Your task to perform on an android device: Open notification settings Image 0: 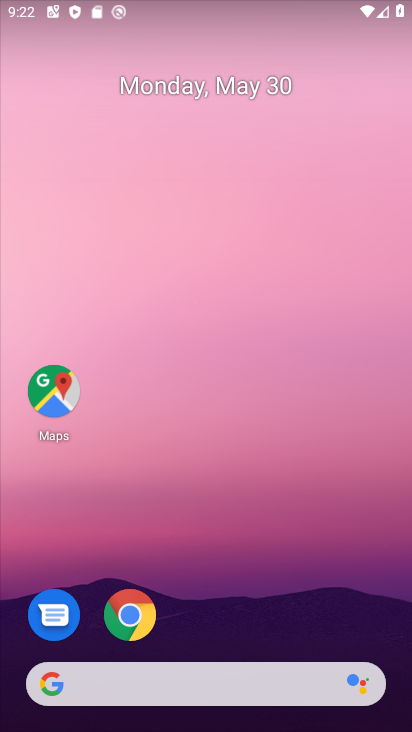
Step 0: drag from (267, 556) to (178, 27)
Your task to perform on an android device: Open notification settings Image 1: 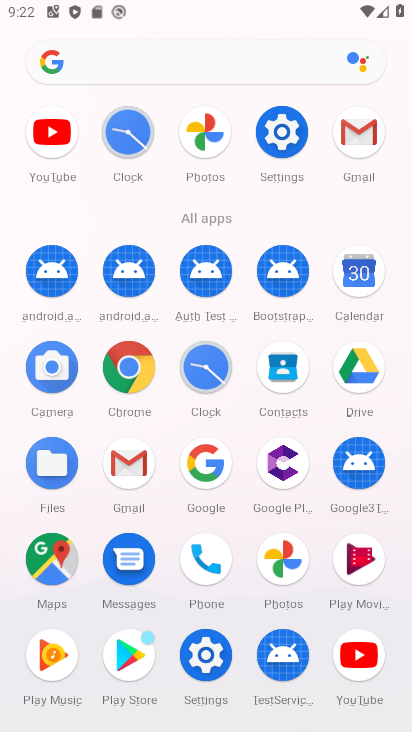
Step 1: click (282, 138)
Your task to perform on an android device: Open notification settings Image 2: 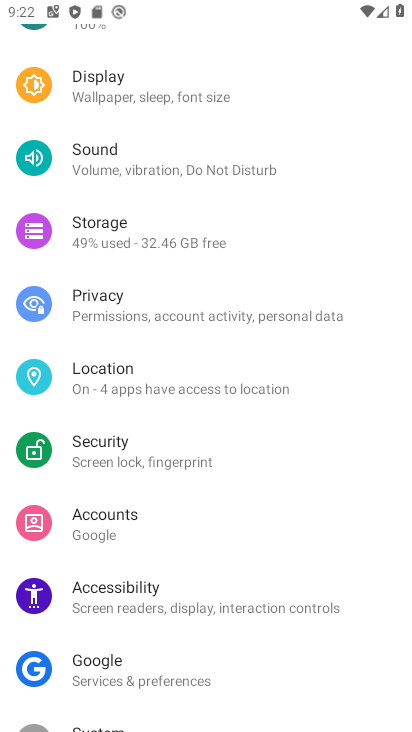
Step 2: drag from (196, 111) to (187, 525)
Your task to perform on an android device: Open notification settings Image 3: 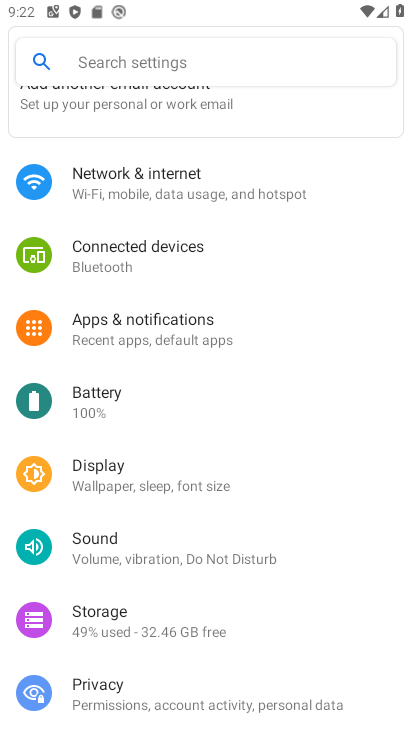
Step 3: click (155, 320)
Your task to perform on an android device: Open notification settings Image 4: 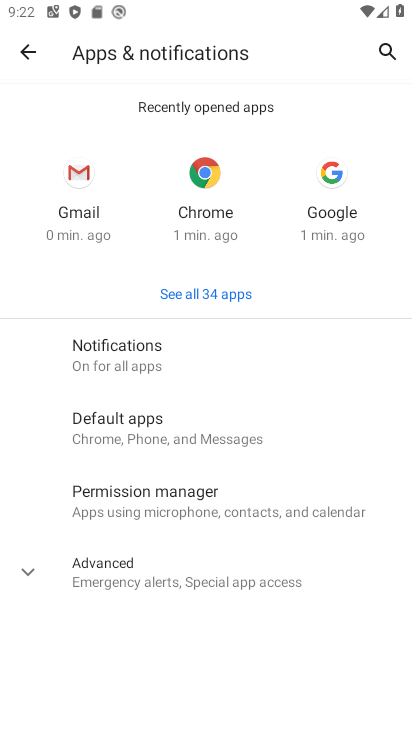
Step 4: task complete